Your task to perform on an android device: turn on translation in the chrome app Image 0: 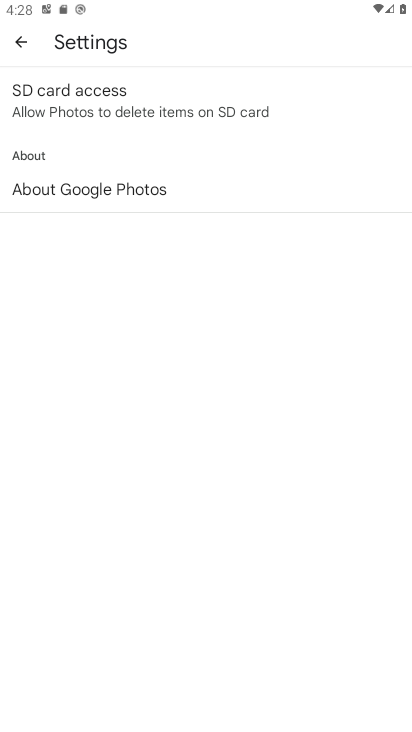
Step 0: press home button
Your task to perform on an android device: turn on translation in the chrome app Image 1: 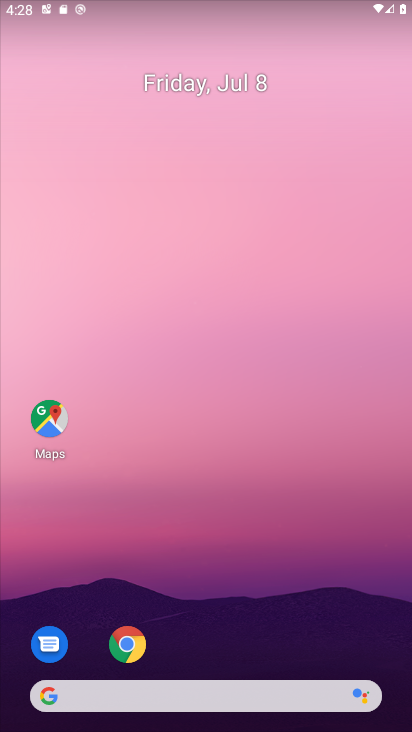
Step 1: click (128, 647)
Your task to perform on an android device: turn on translation in the chrome app Image 2: 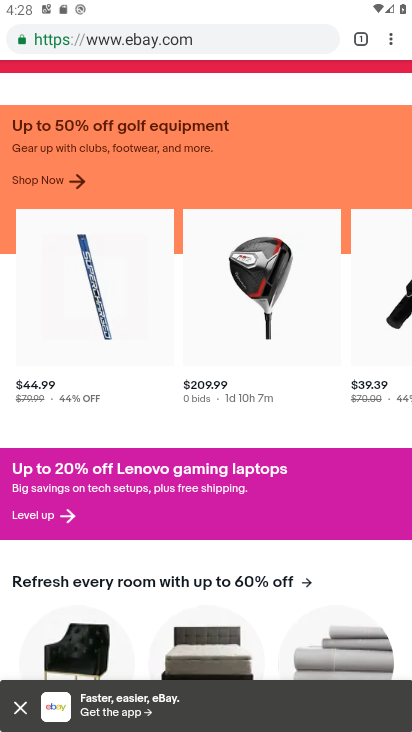
Step 2: click (389, 46)
Your task to perform on an android device: turn on translation in the chrome app Image 3: 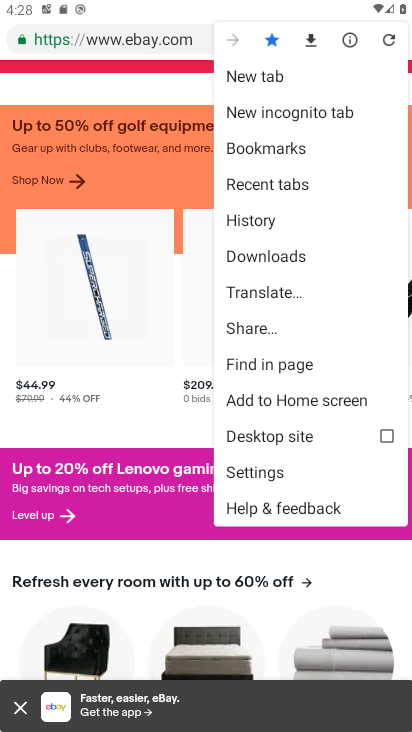
Step 3: click (249, 473)
Your task to perform on an android device: turn on translation in the chrome app Image 4: 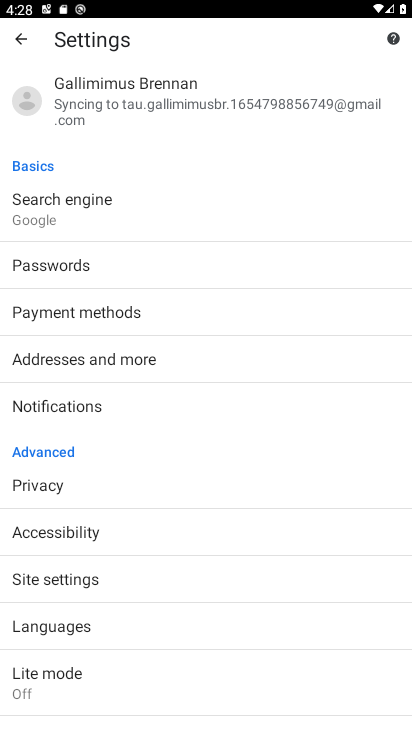
Step 4: click (68, 630)
Your task to perform on an android device: turn on translation in the chrome app Image 5: 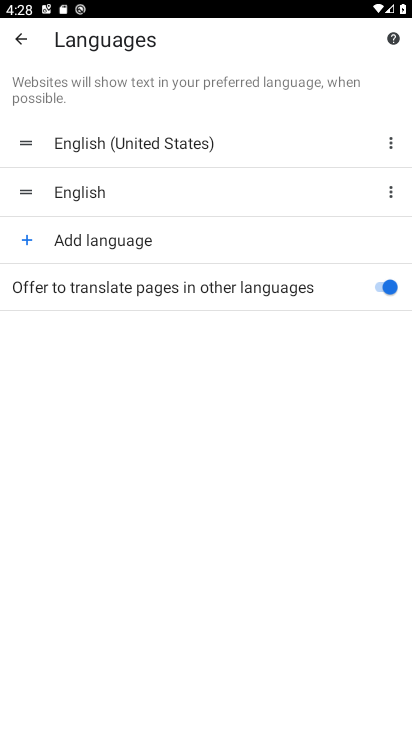
Step 5: task complete